Your task to perform on an android device: open sync settings in chrome Image 0: 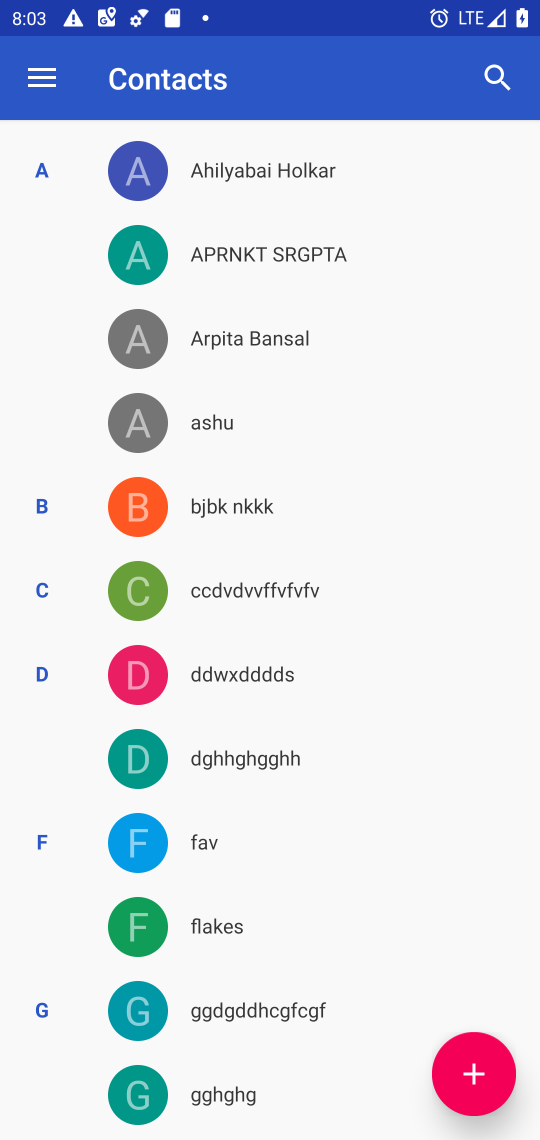
Step 0: press home button
Your task to perform on an android device: open sync settings in chrome Image 1: 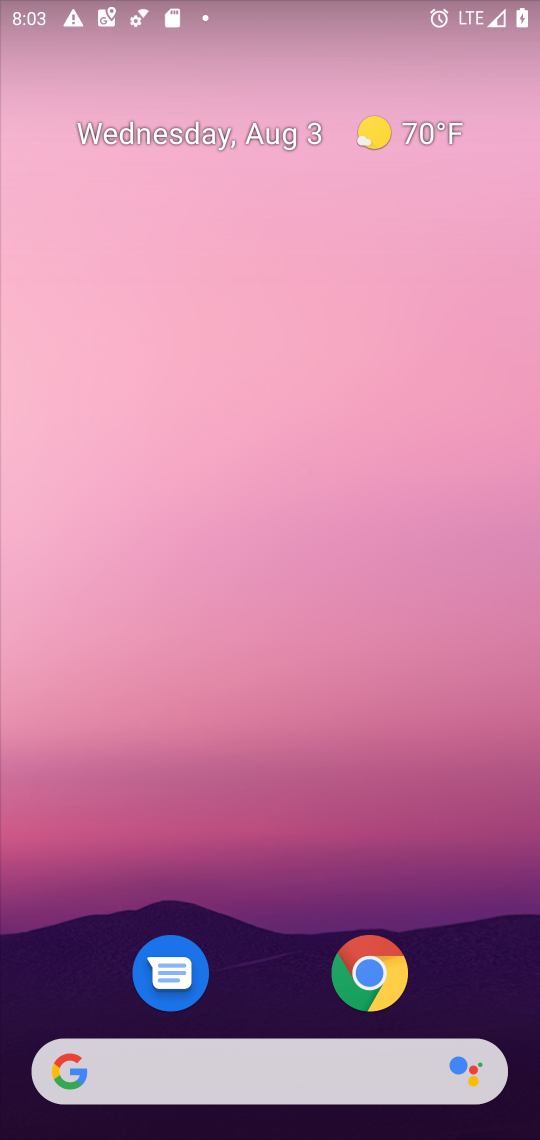
Step 1: click (365, 955)
Your task to perform on an android device: open sync settings in chrome Image 2: 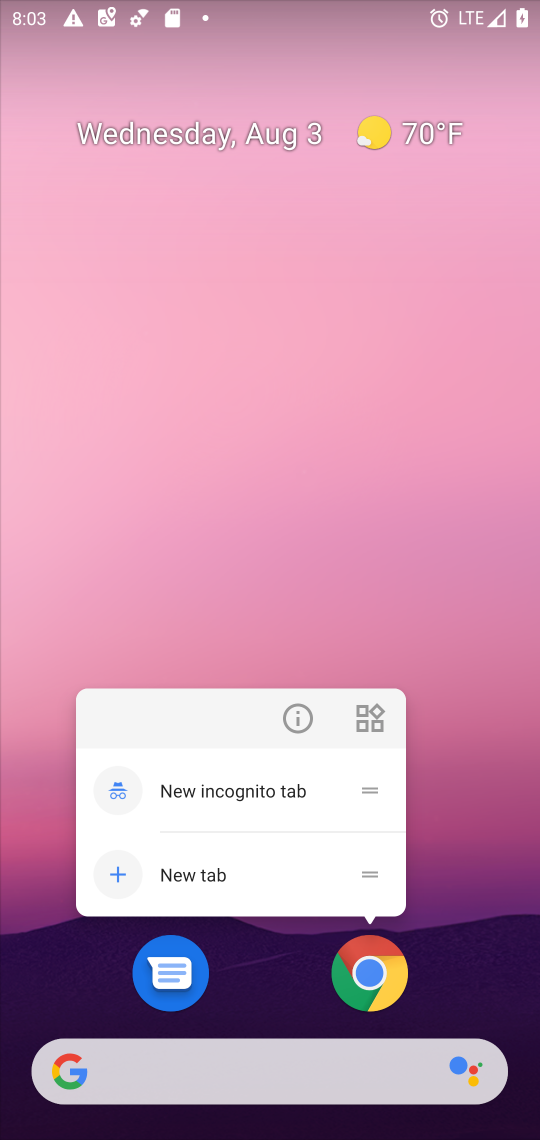
Step 2: click (456, 975)
Your task to perform on an android device: open sync settings in chrome Image 3: 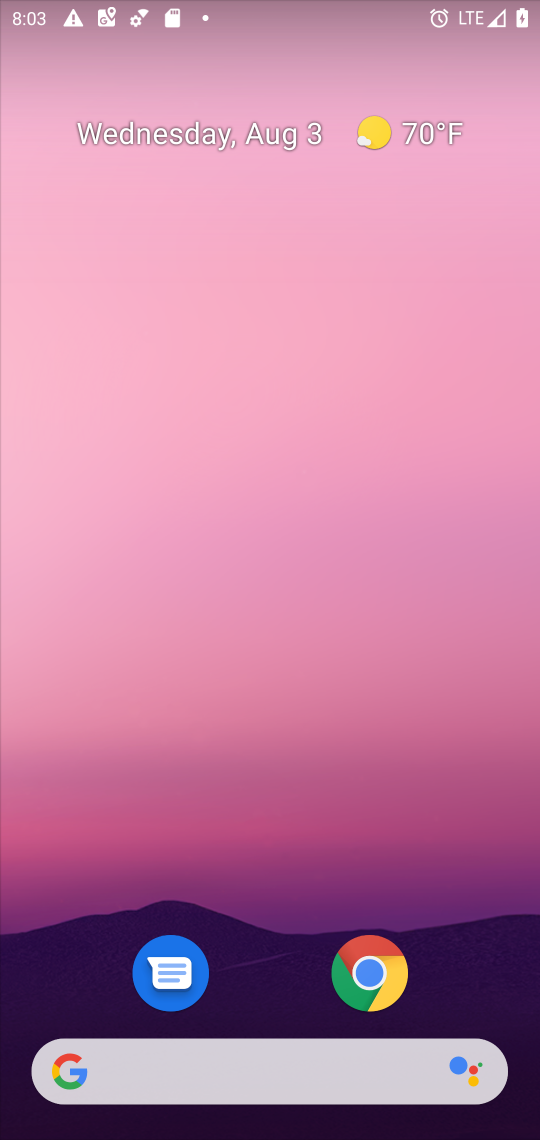
Step 3: drag from (446, 1017) to (509, 1)
Your task to perform on an android device: open sync settings in chrome Image 4: 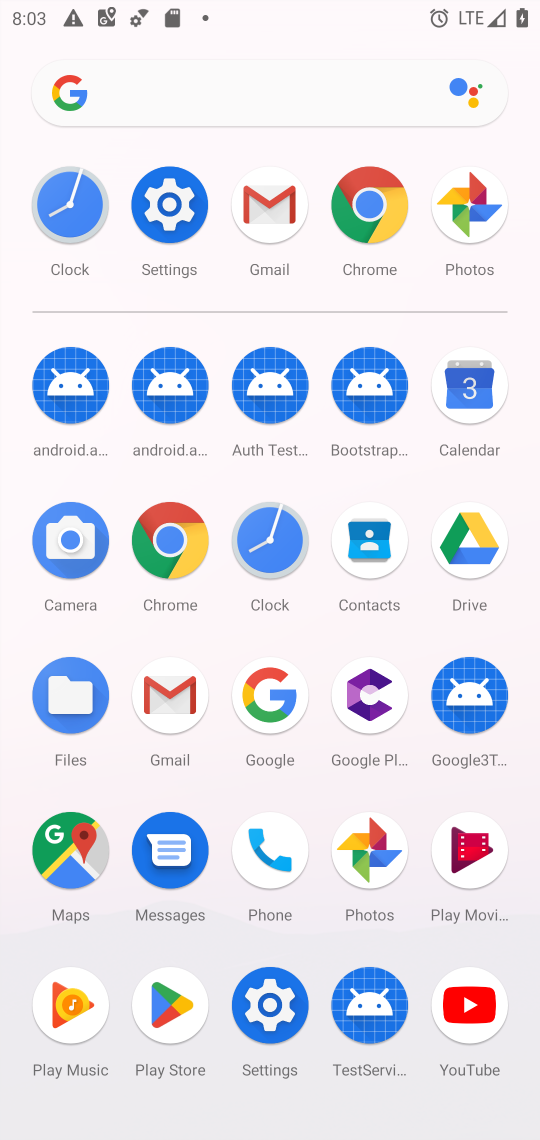
Step 4: click (167, 525)
Your task to perform on an android device: open sync settings in chrome Image 5: 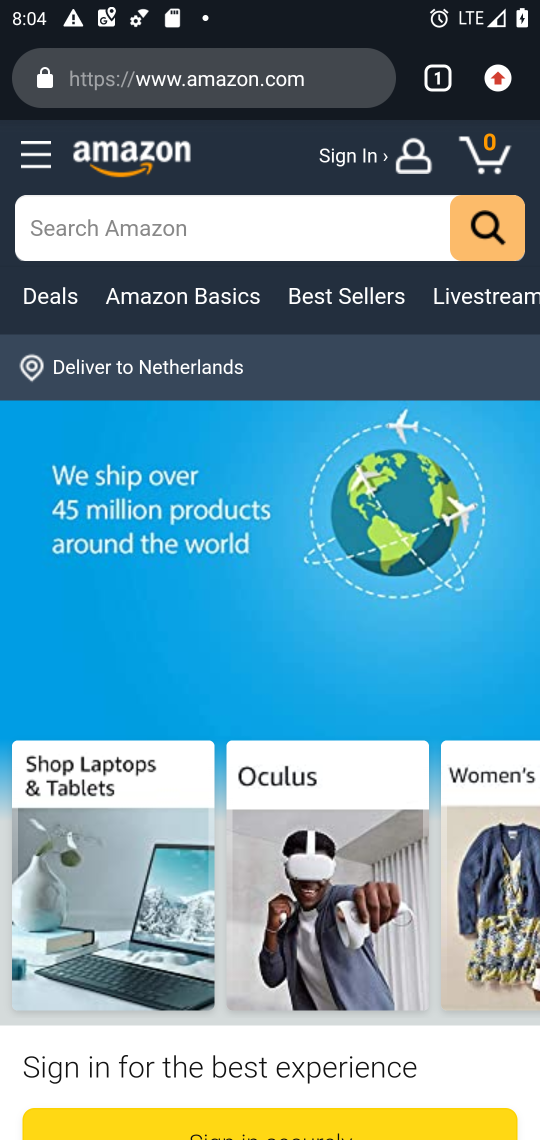
Step 5: click (500, 79)
Your task to perform on an android device: open sync settings in chrome Image 6: 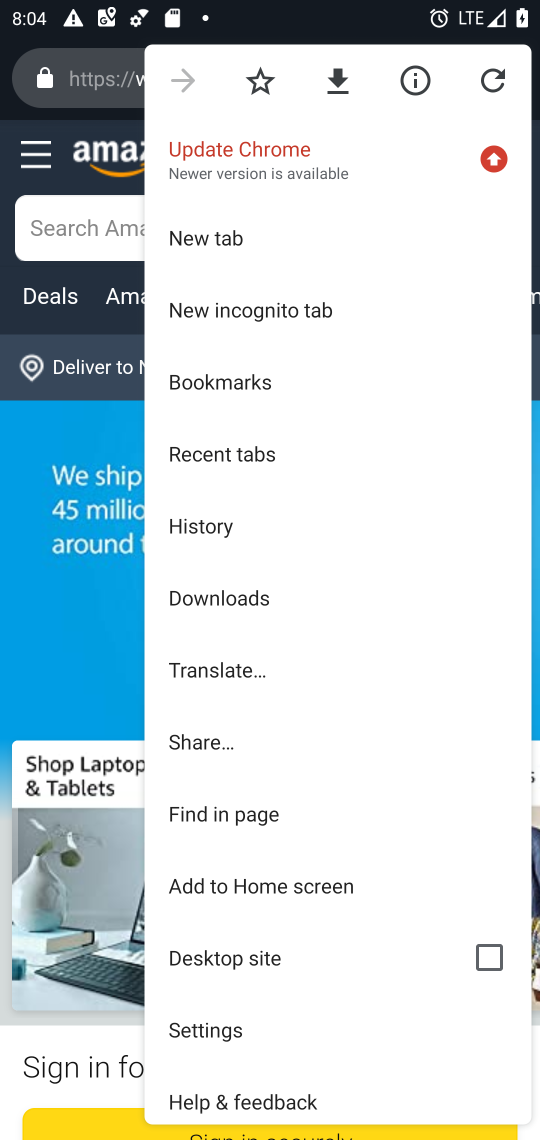
Step 6: click (256, 1031)
Your task to perform on an android device: open sync settings in chrome Image 7: 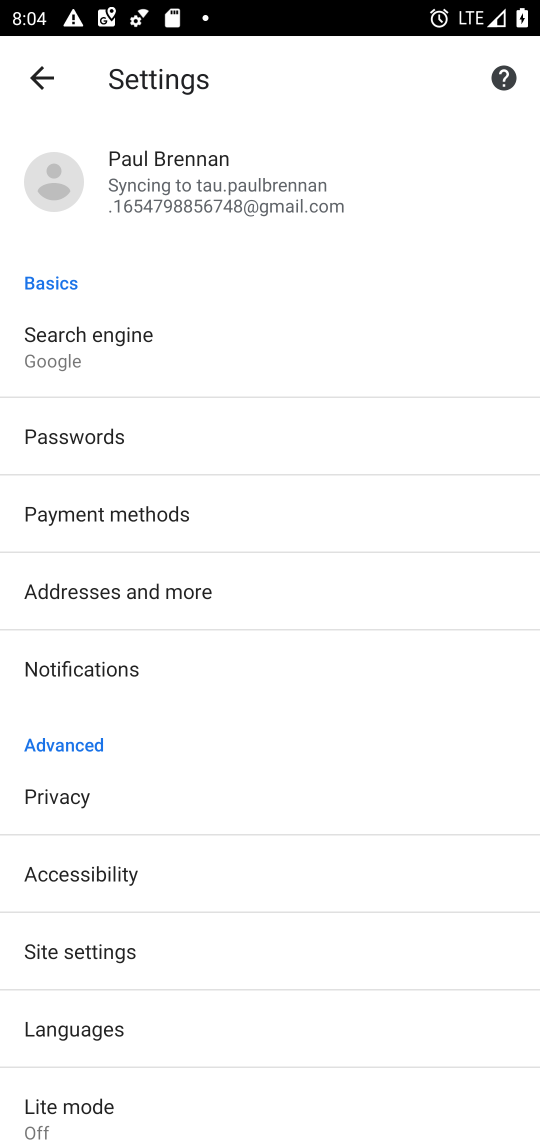
Step 7: click (204, 184)
Your task to perform on an android device: open sync settings in chrome Image 8: 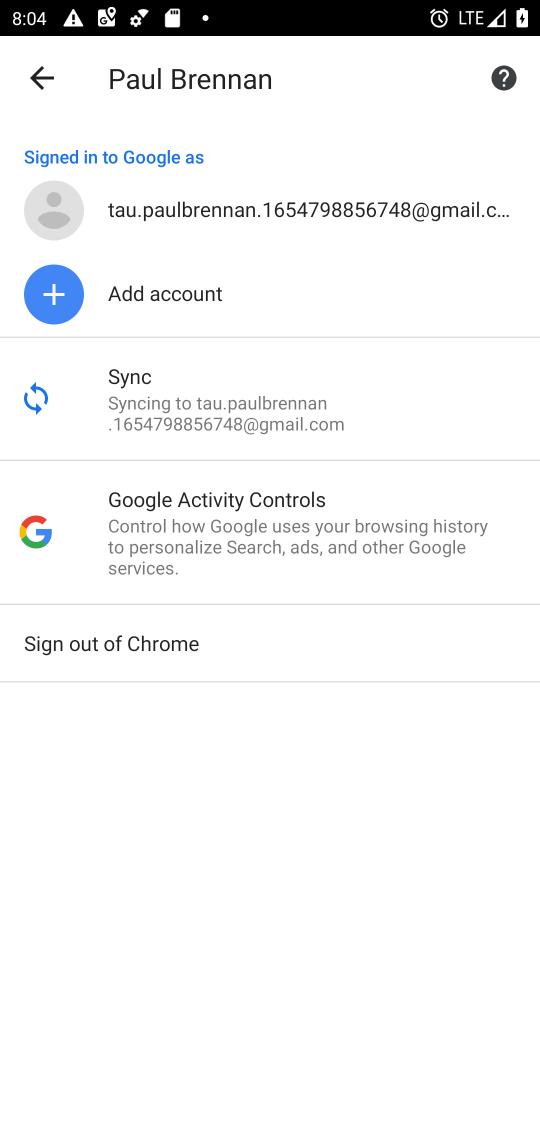
Step 8: click (188, 399)
Your task to perform on an android device: open sync settings in chrome Image 9: 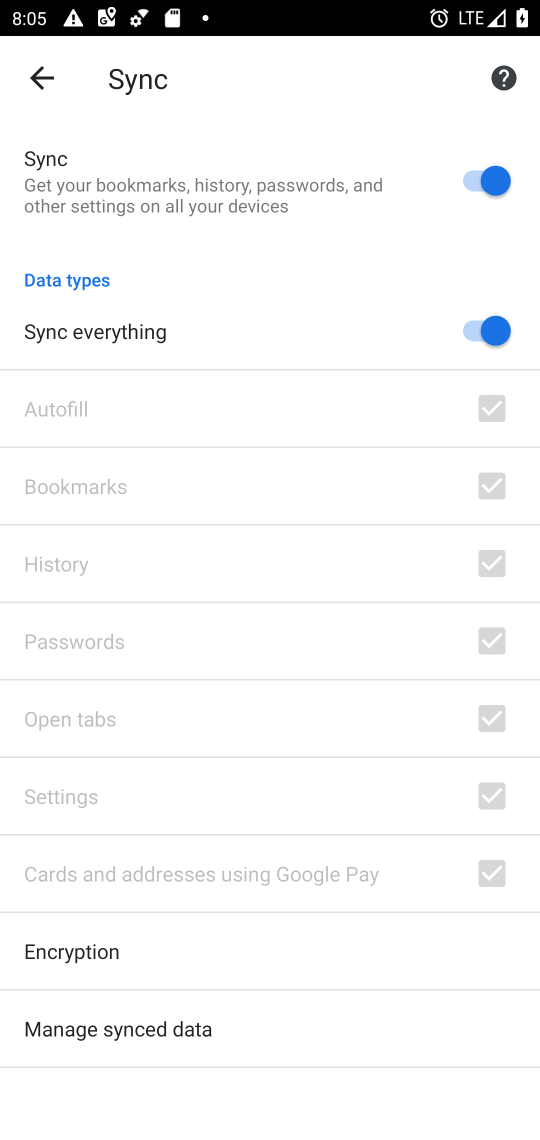
Step 9: task complete